Your task to perform on an android device: turn smart compose on in the gmail app Image 0: 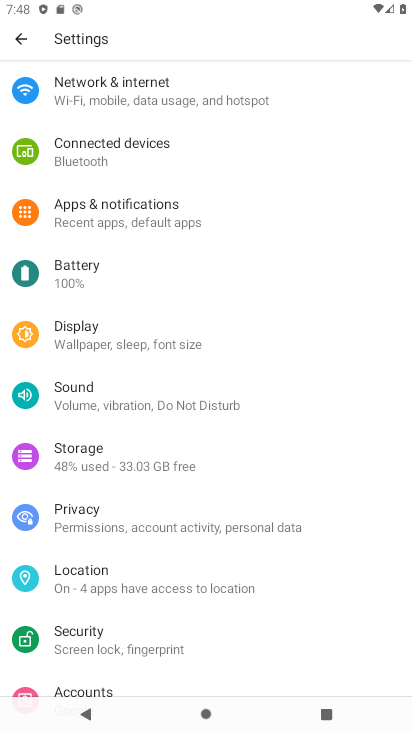
Step 0: press home button
Your task to perform on an android device: turn smart compose on in the gmail app Image 1: 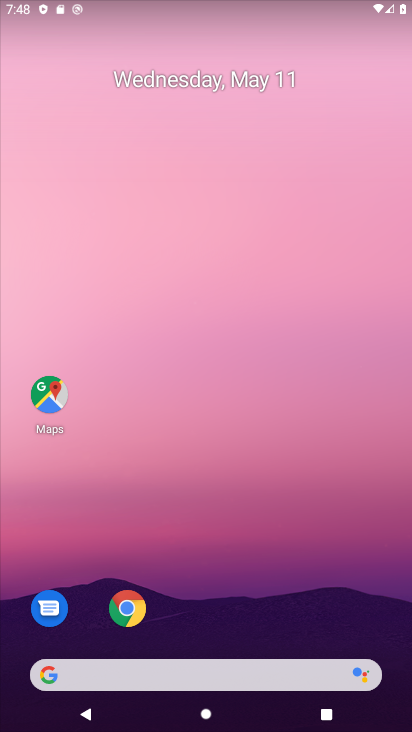
Step 1: click (225, 589)
Your task to perform on an android device: turn smart compose on in the gmail app Image 2: 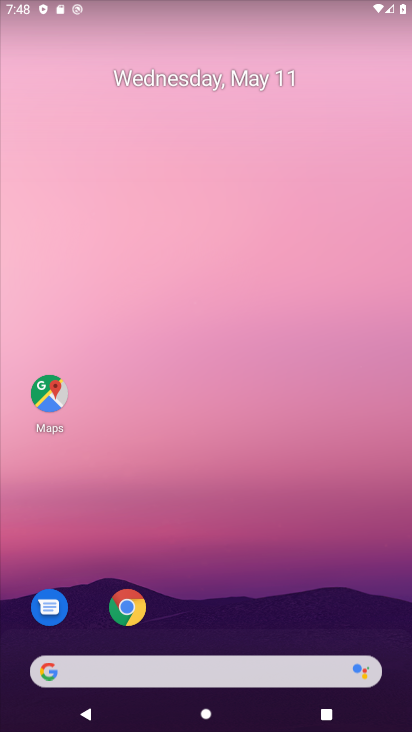
Step 2: drag from (225, 578) to (258, 127)
Your task to perform on an android device: turn smart compose on in the gmail app Image 3: 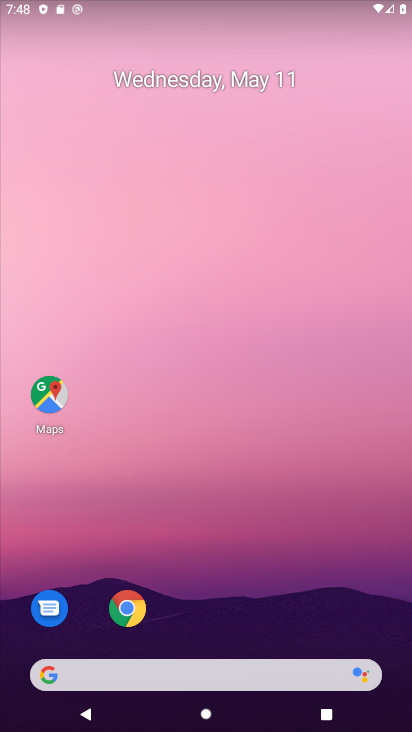
Step 3: drag from (220, 542) to (225, 61)
Your task to perform on an android device: turn smart compose on in the gmail app Image 4: 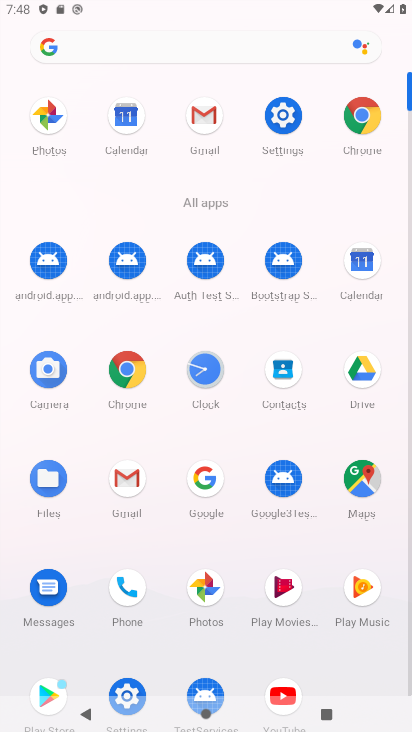
Step 4: click (196, 146)
Your task to perform on an android device: turn smart compose on in the gmail app Image 5: 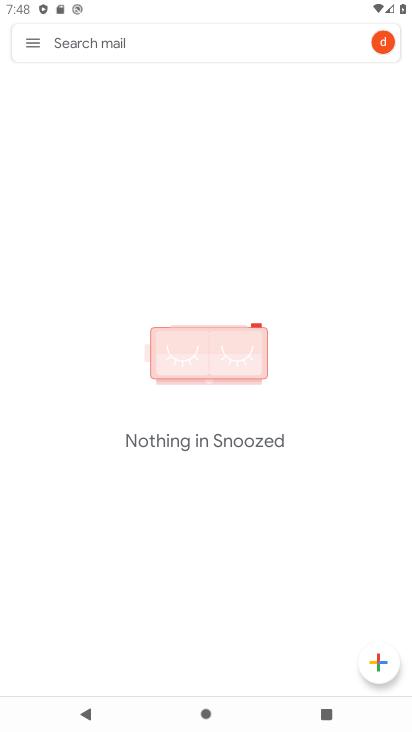
Step 5: click (33, 46)
Your task to perform on an android device: turn smart compose on in the gmail app Image 6: 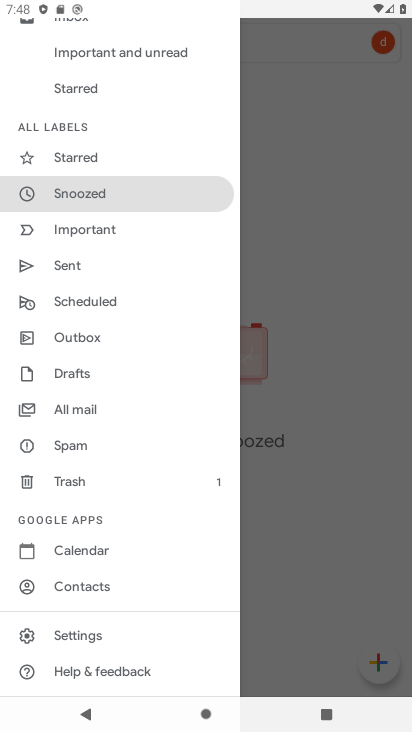
Step 6: click (109, 642)
Your task to perform on an android device: turn smart compose on in the gmail app Image 7: 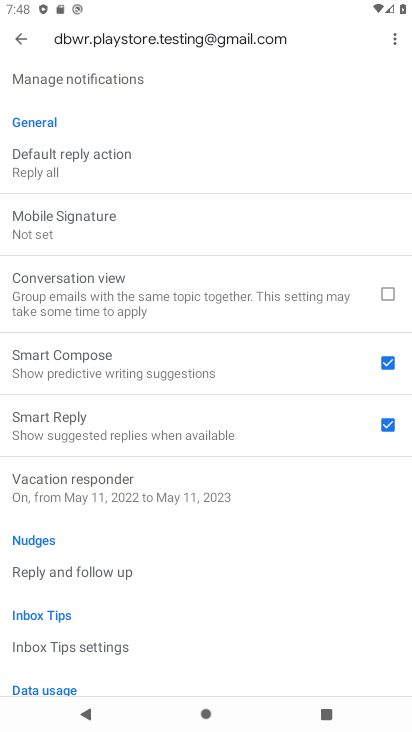
Step 7: drag from (93, 583) to (106, 511)
Your task to perform on an android device: turn smart compose on in the gmail app Image 8: 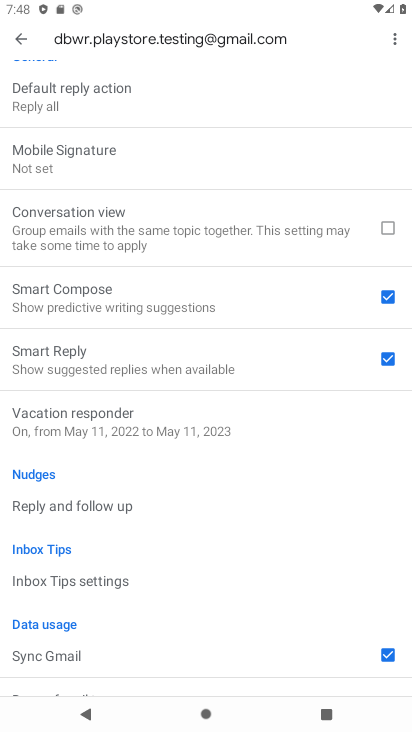
Step 8: click (378, 280)
Your task to perform on an android device: turn smart compose on in the gmail app Image 9: 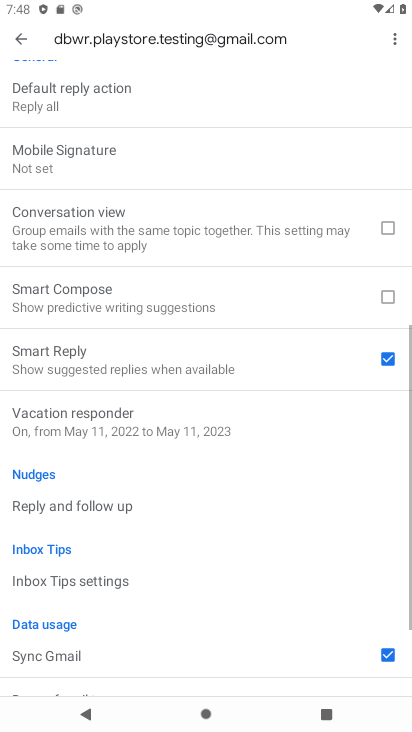
Step 9: click (378, 280)
Your task to perform on an android device: turn smart compose on in the gmail app Image 10: 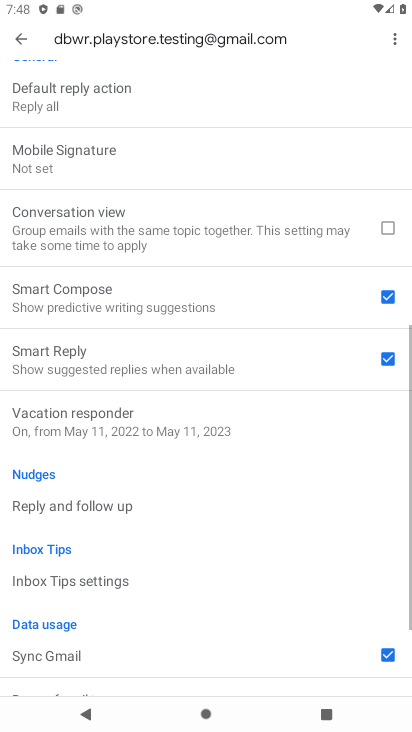
Step 10: task complete